Your task to perform on an android device: Is it going to rain this weekend? Image 0: 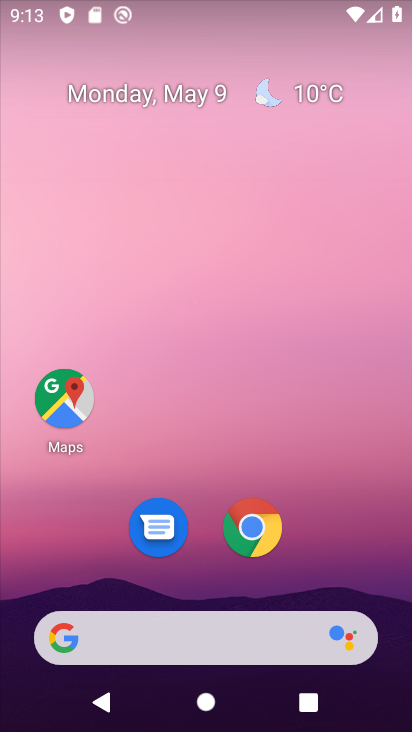
Step 0: click (311, 88)
Your task to perform on an android device: Is it going to rain this weekend? Image 1: 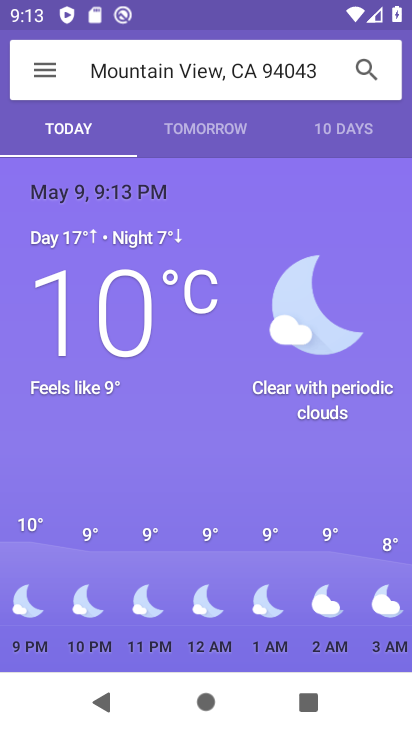
Step 1: click (337, 132)
Your task to perform on an android device: Is it going to rain this weekend? Image 2: 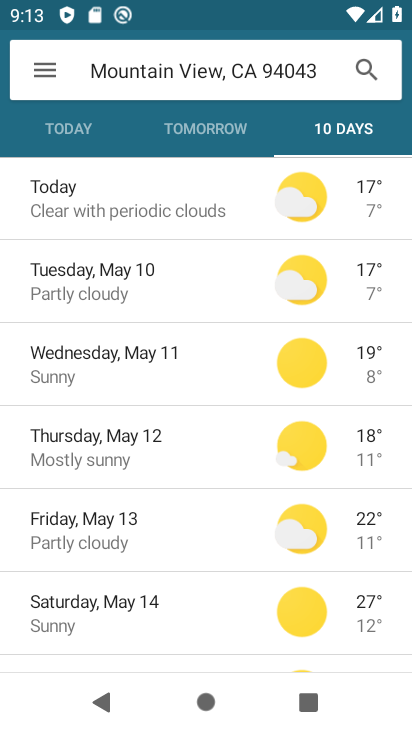
Step 2: task complete